Your task to perform on an android device: Open the stopwatch Image 0: 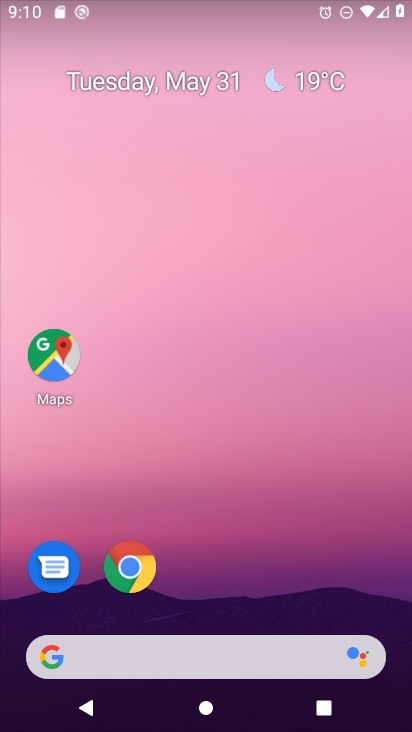
Step 0: drag from (235, 625) to (235, 177)
Your task to perform on an android device: Open the stopwatch Image 1: 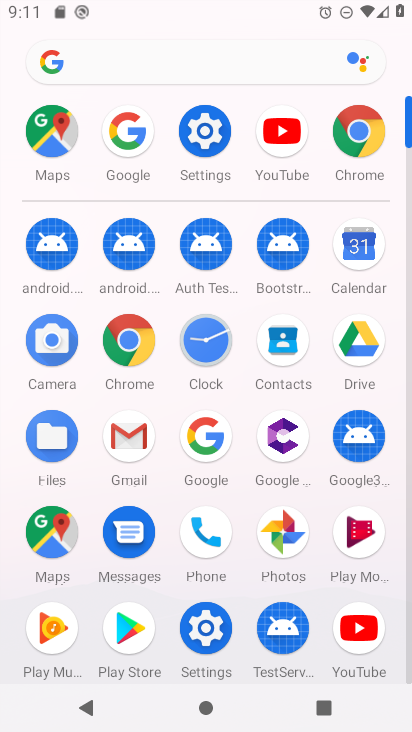
Step 1: click (208, 338)
Your task to perform on an android device: Open the stopwatch Image 2: 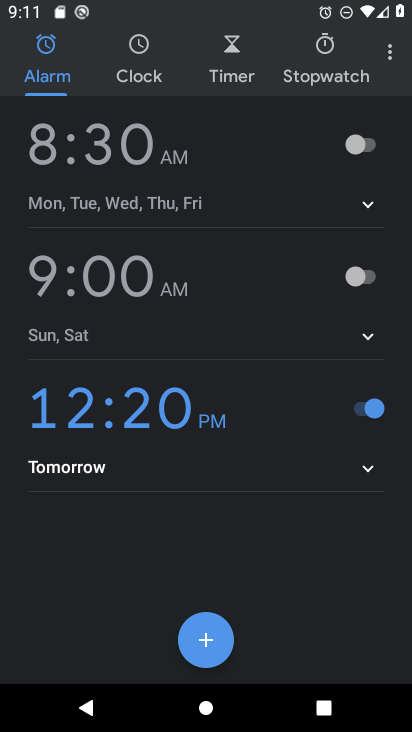
Step 2: click (321, 72)
Your task to perform on an android device: Open the stopwatch Image 3: 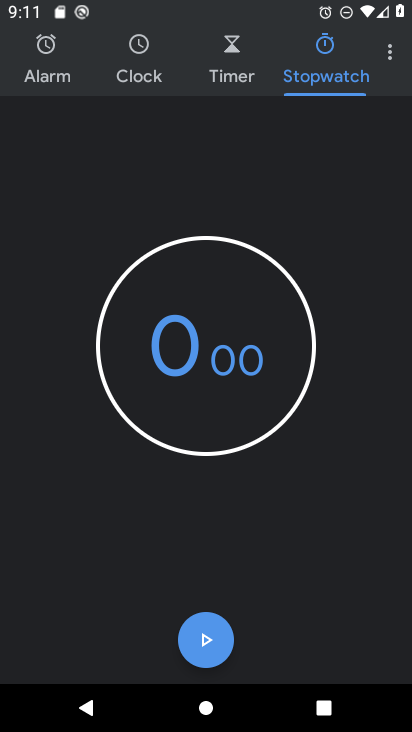
Step 3: task complete